Your task to perform on an android device: Open the stopwatch Image 0: 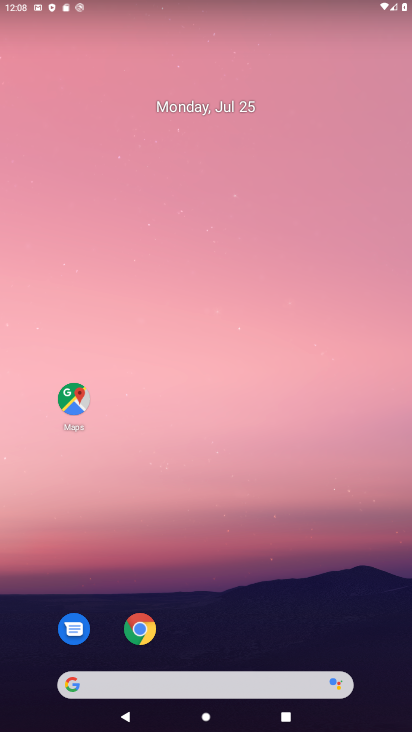
Step 0: drag from (232, 663) to (188, 13)
Your task to perform on an android device: Open the stopwatch Image 1: 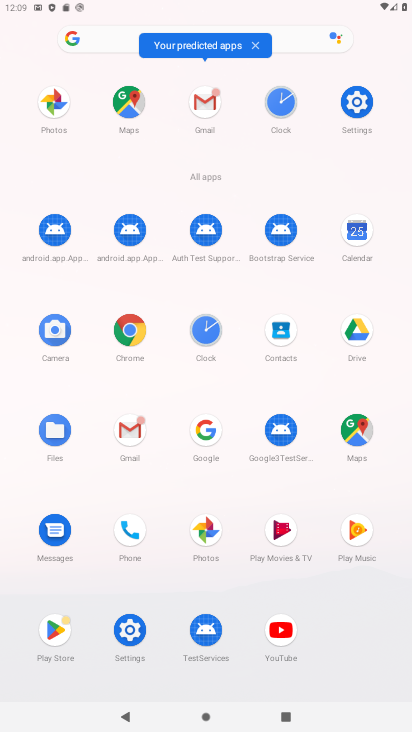
Step 1: click (186, 336)
Your task to perform on an android device: Open the stopwatch Image 2: 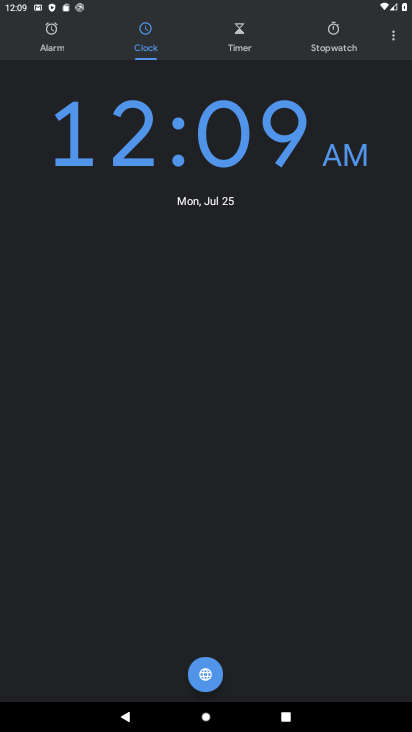
Step 2: click (333, 26)
Your task to perform on an android device: Open the stopwatch Image 3: 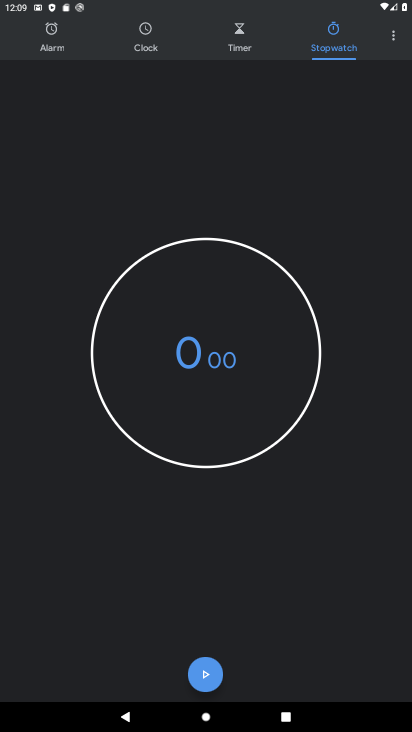
Step 3: task complete